Your task to perform on an android device: turn on airplane mode Image 0: 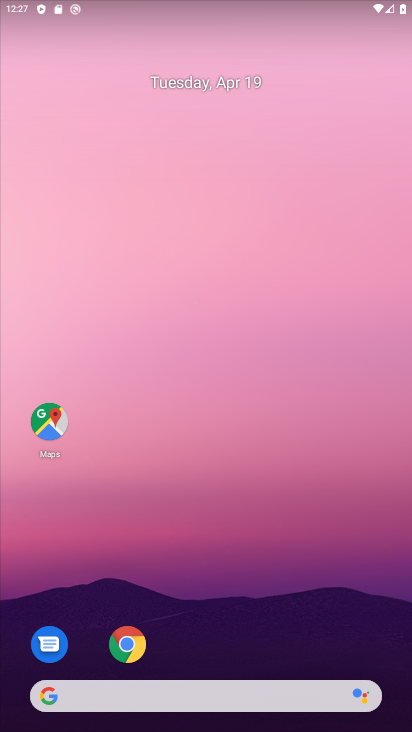
Step 0: drag from (290, 618) to (344, 41)
Your task to perform on an android device: turn on airplane mode Image 1: 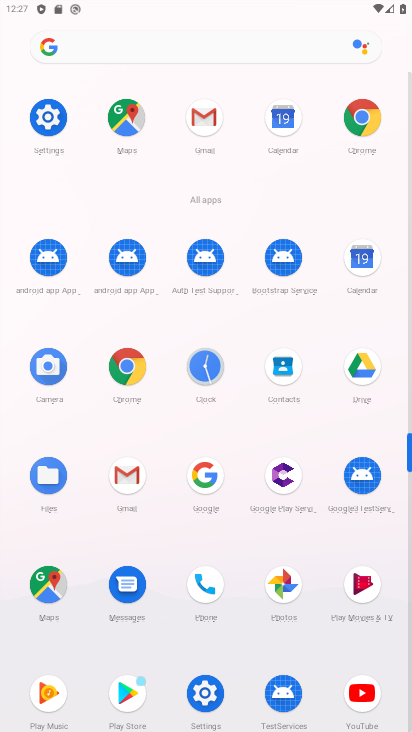
Step 1: click (58, 125)
Your task to perform on an android device: turn on airplane mode Image 2: 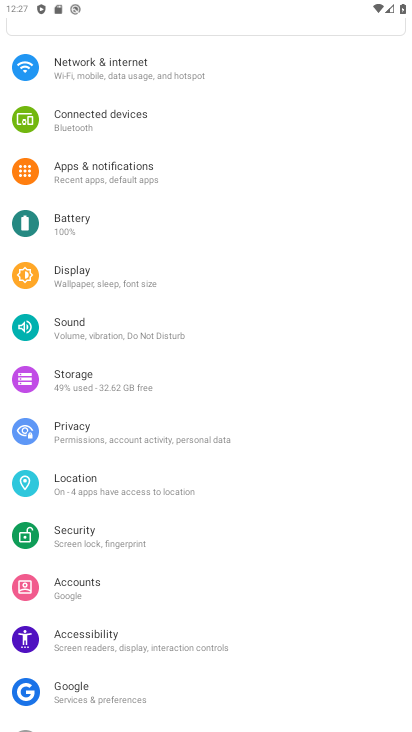
Step 2: click (215, 81)
Your task to perform on an android device: turn on airplane mode Image 3: 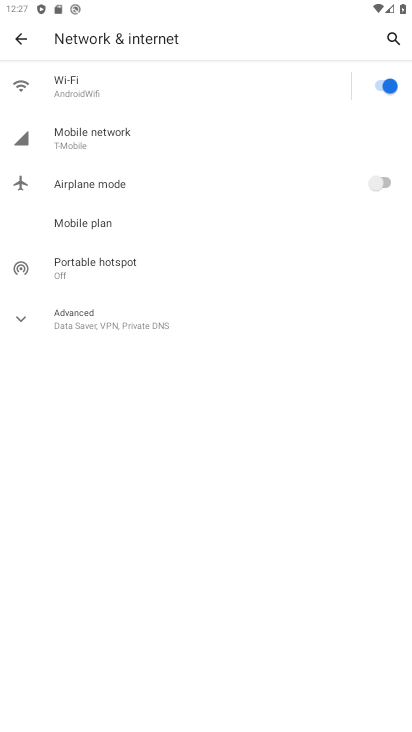
Step 3: click (376, 187)
Your task to perform on an android device: turn on airplane mode Image 4: 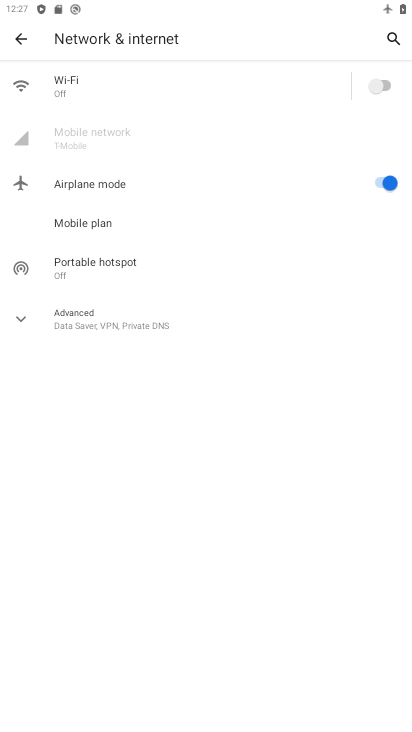
Step 4: task complete